Your task to perform on an android device: Search for seafood restaurants on Google Maps Image 0: 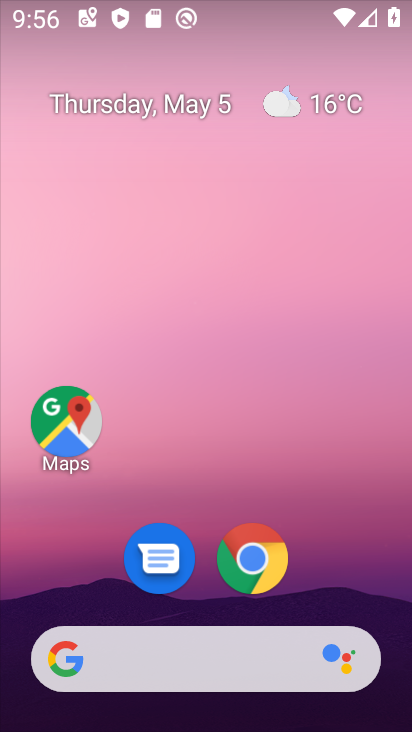
Step 0: click (73, 428)
Your task to perform on an android device: Search for seafood restaurants on Google Maps Image 1: 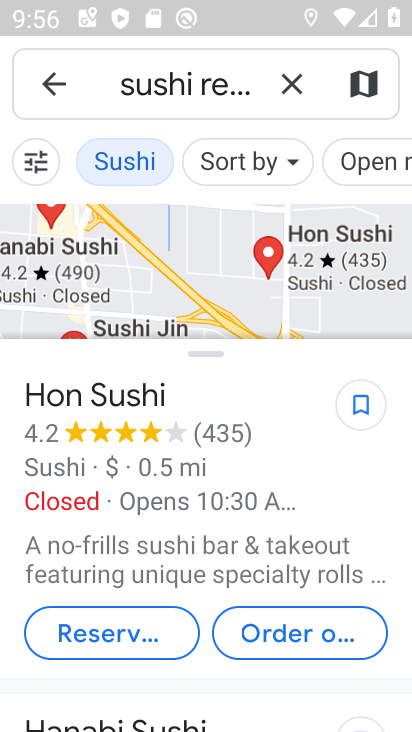
Step 1: click (293, 80)
Your task to perform on an android device: Search for seafood restaurants on Google Maps Image 2: 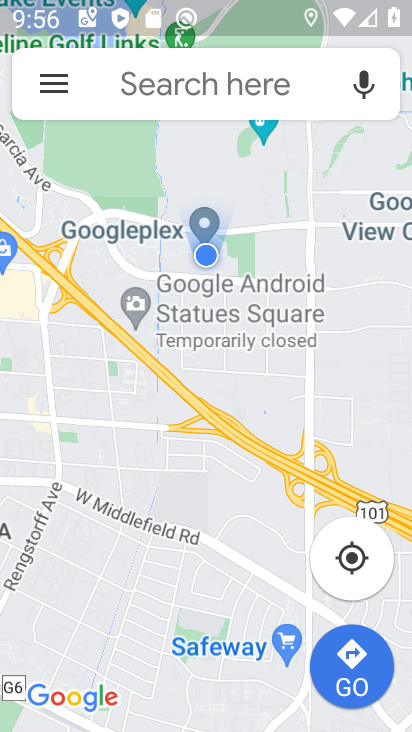
Step 2: click (273, 714)
Your task to perform on an android device: Search for seafood restaurants on Google Maps Image 3: 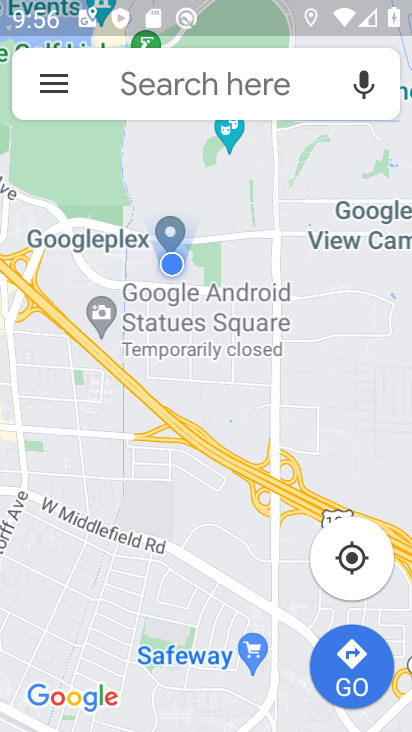
Step 3: click (179, 91)
Your task to perform on an android device: Search for seafood restaurants on Google Maps Image 4: 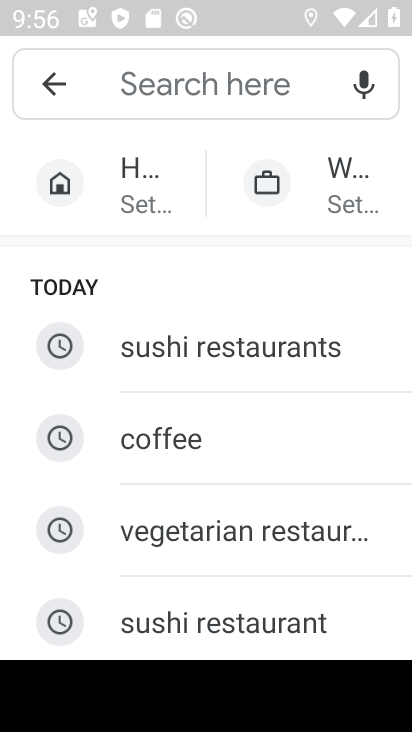
Step 4: type "seafood restaurants"
Your task to perform on an android device: Search for seafood restaurants on Google Maps Image 5: 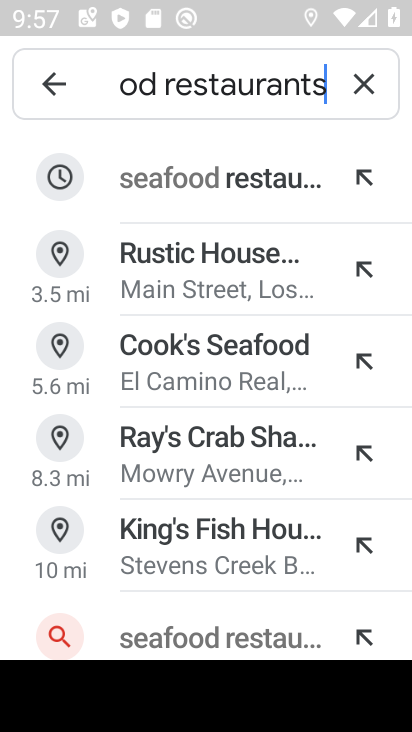
Step 5: click (258, 168)
Your task to perform on an android device: Search for seafood restaurants on Google Maps Image 6: 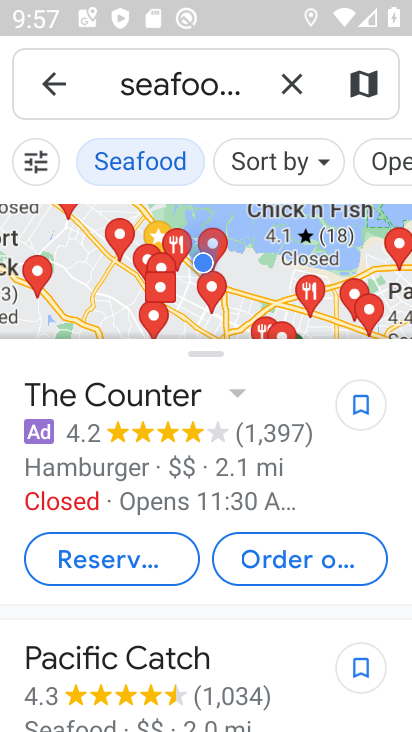
Step 6: task complete